Your task to perform on an android device: Show me recent news Image 0: 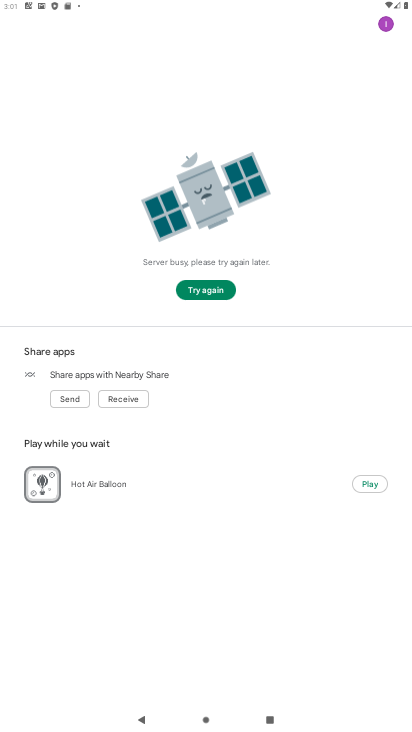
Step 0: press home button
Your task to perform on an android device: Show me recent news Image 1: 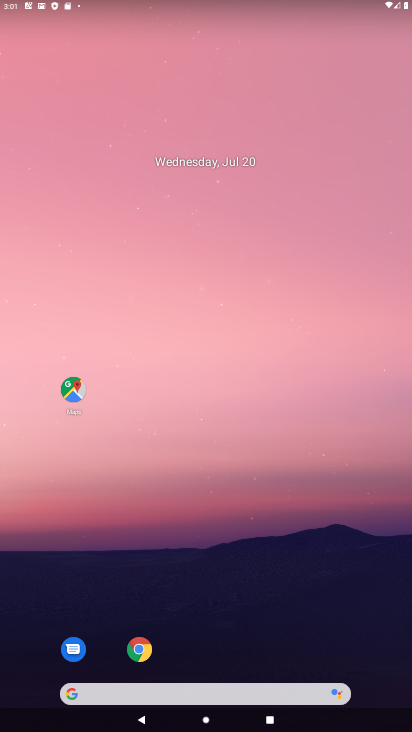
Step 1: drag from (191, 696) to (247, 79)
Your task to perform on an android device: Show me recent news Image 2: 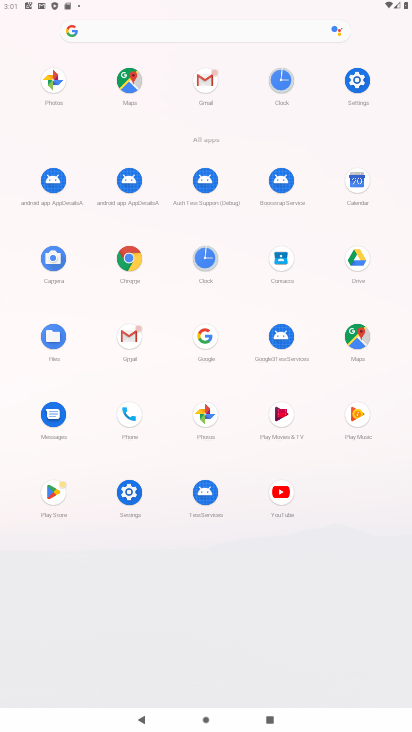
Step 2: click (203, 335)
Your task to perform on an android device: Show me recent news Image 3: 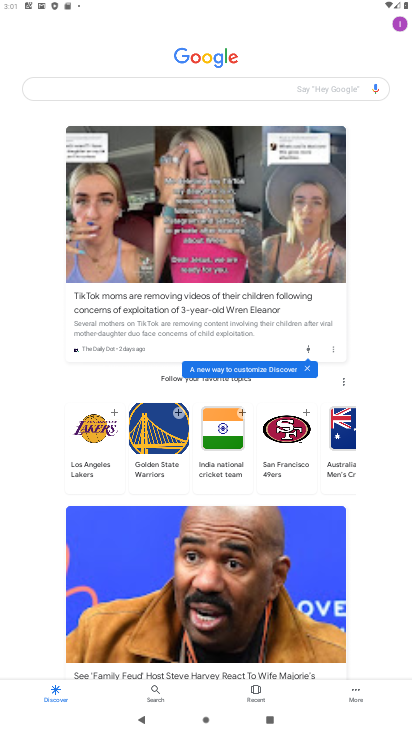
Step 3: click (210, 88)
Your task to perform on an android device: Show me recent news Image 4: 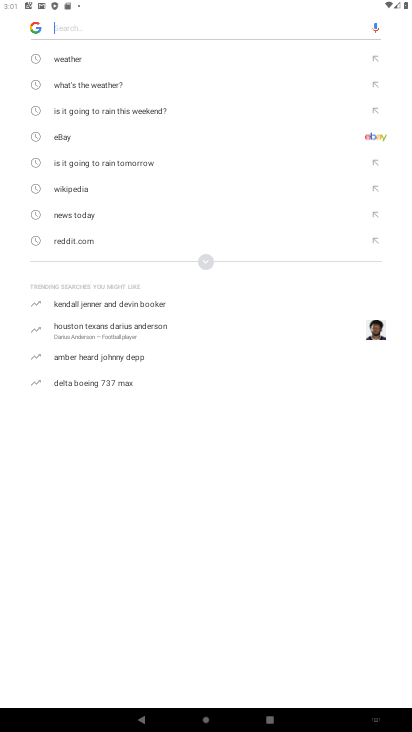
Step 4: type "recent news"
Your task to perform on an android device: Show me recent news Image 5: 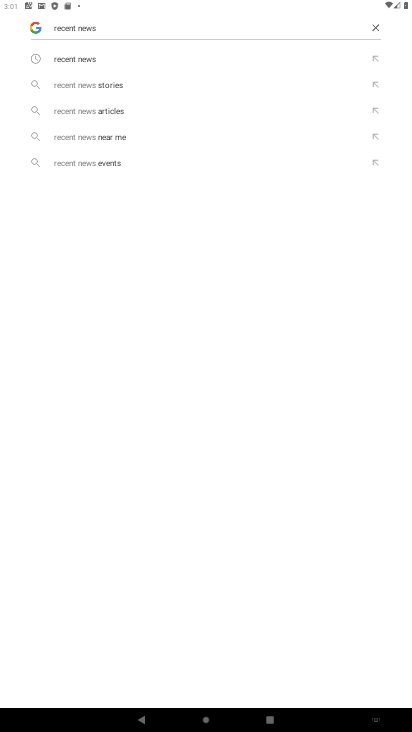
Step 5: click (78, 52)
Your task to perform on an android device: Show me recent news Image 6: 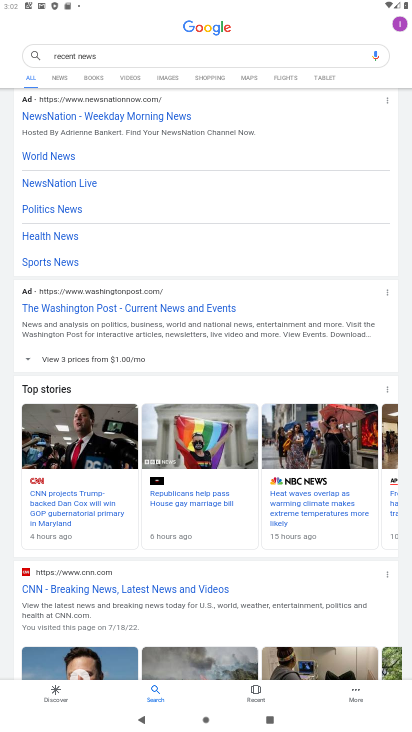
Step 6: click (59, 501)
Your task to perform on an android device: Show me recent news Image 7: 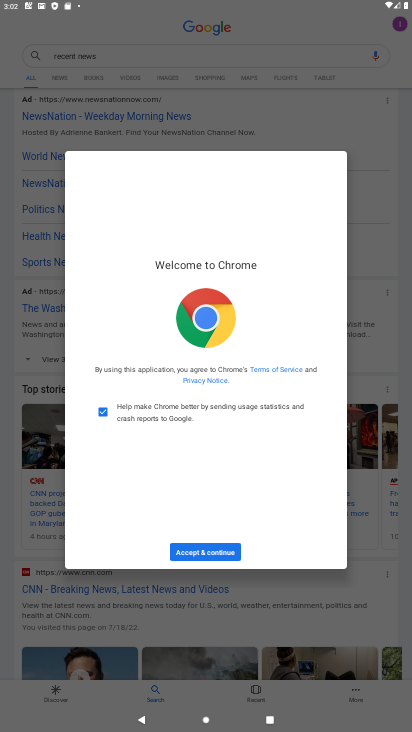
Step 7: click (202, 554)
Your task to perform on an android device: Show me recent news Image 8: 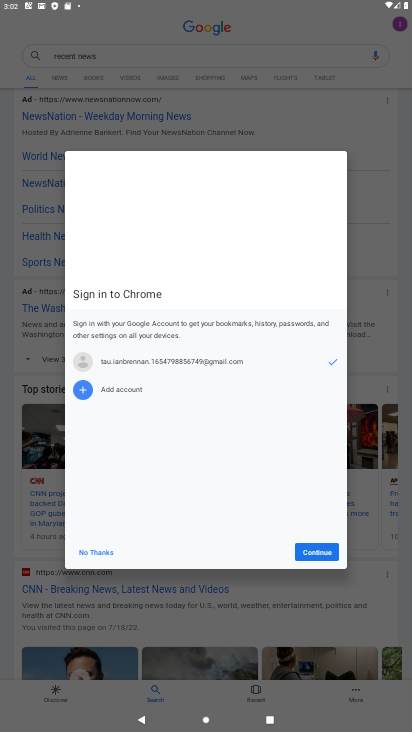
Step 8: click (327, 554)
Your task to perform on an android device: Show me recent news Image 9: 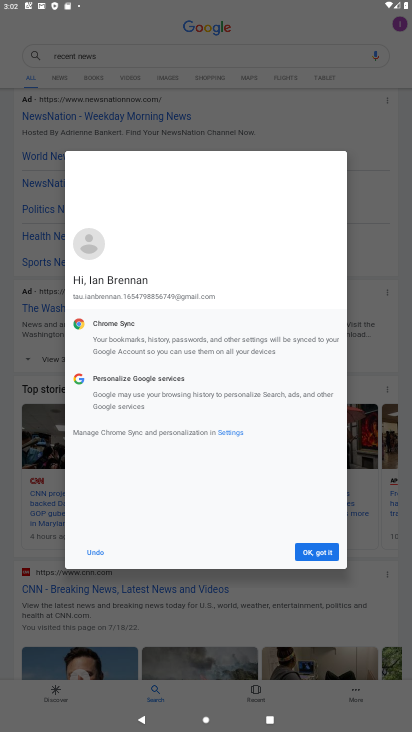
Step 9: click (327, 554)
Your task to perform on an android device: Show me recent news Image 10: 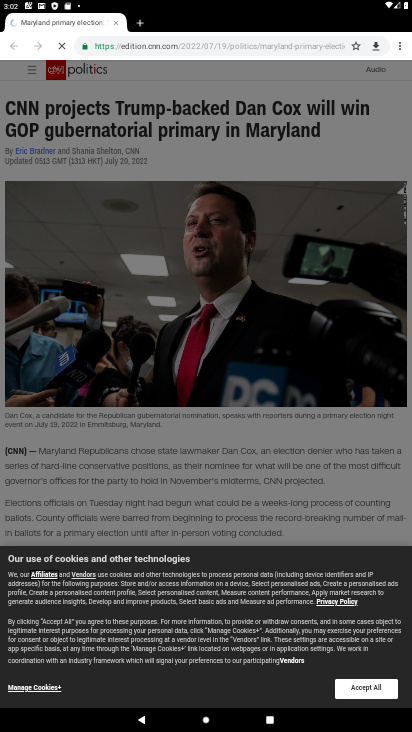
Step 10: task complete